Your task to perform on an android device: Is it going to rain tomorrow? Image 0: 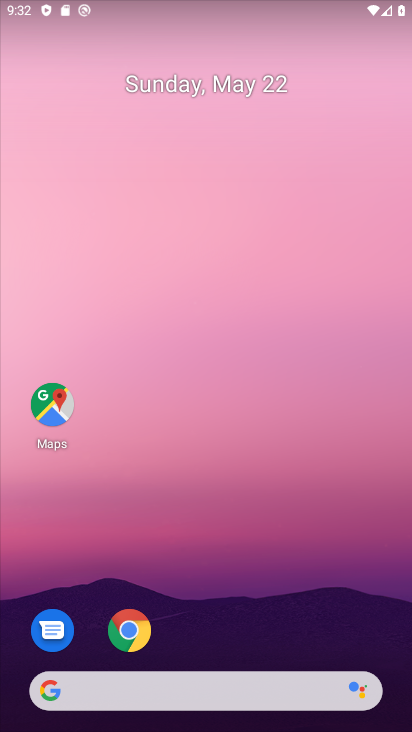
Step 0: drag from (1, 234) to (366, 201)
Your task to perform on an android device: Is it going to rain tomorrow? Image 1: 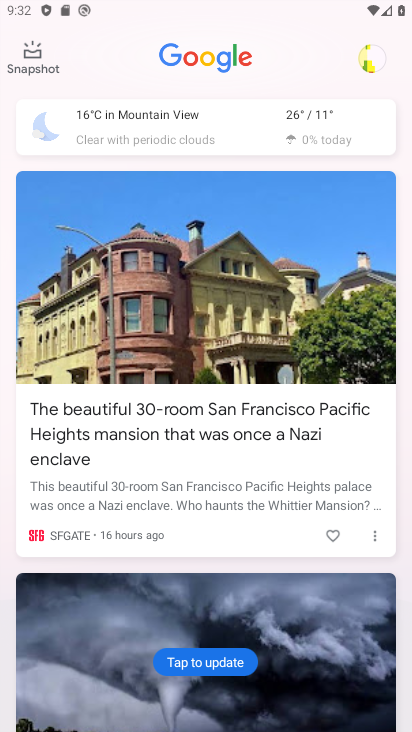
Step 1: click (109, 111)
Your task to perform on an android device: Is it going to rain tomorrow? Image 2: 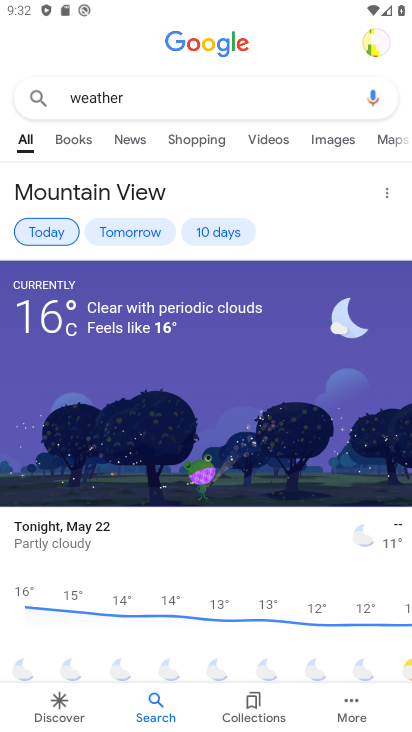
Step 2: click (118, 235)
Your task to perform on an android device: Is it going to rain tomorrow? Image 3: 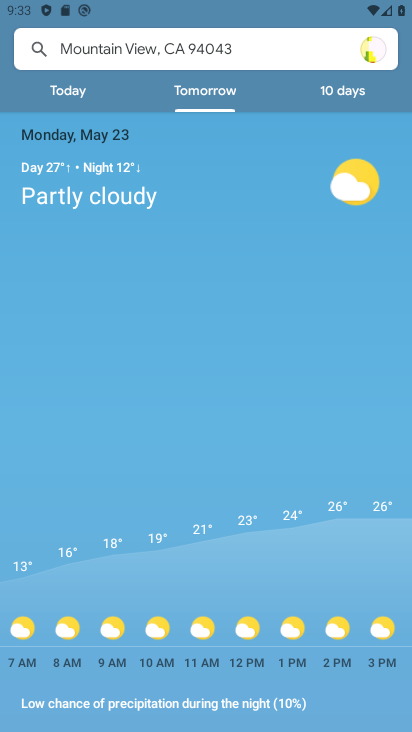
Step 3: task complete